Your task to perform on an android device: Open internet settings Image 0: 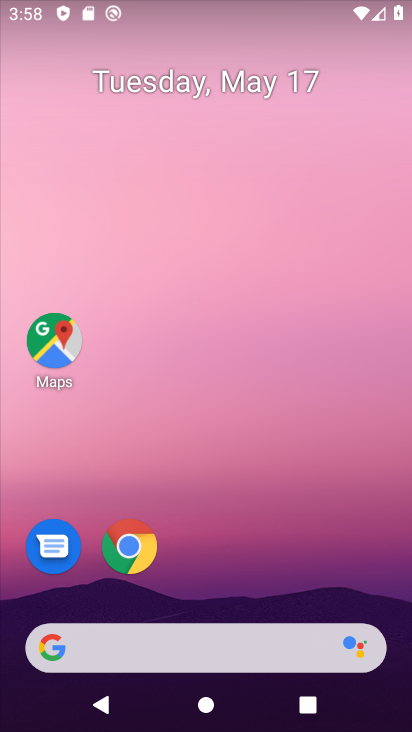
Step 0: drag from (207, 606) to (147, 96)
Your task to perform on an android device: Open internet settings Image 1: 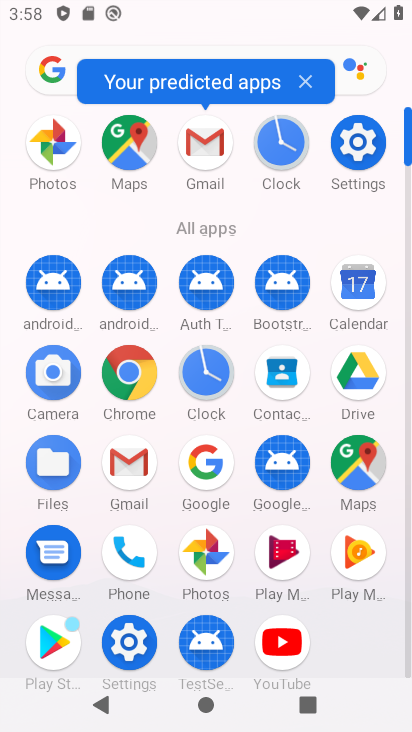
Step 1: click (363, 142)
Your task to perform on an android device: Open internet settings Image 2: 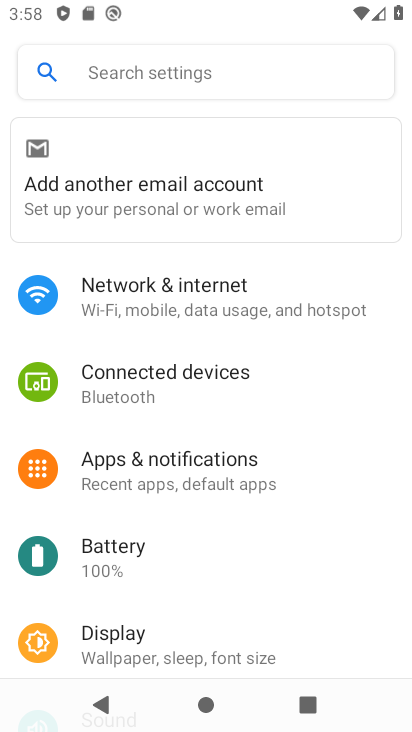
Step 2: click (203, 266)
Your task to perform on an android device: Open internet settings Image 3: 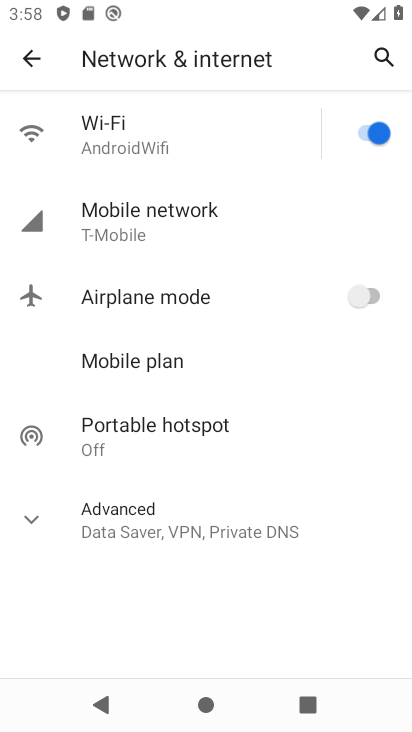
Step 3: click (202, 219)
Your task to perform on an android device: Open internet settings Image 4: 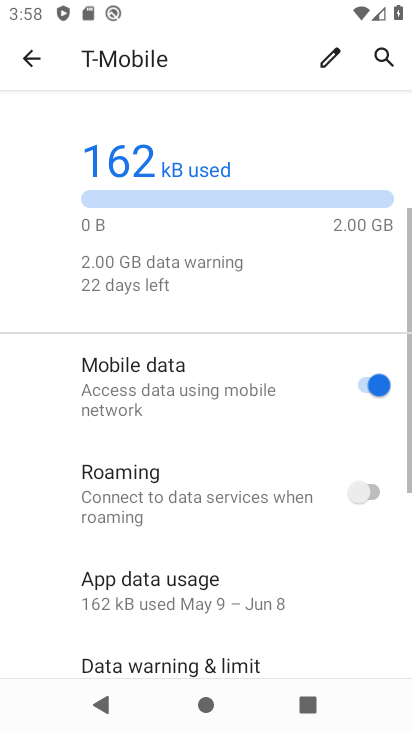
Step 4: task complete